Your task to perform on an android device: Search for "duracell triple a" on newegg.com, select the first entry, and add it to the cart. Image 0: 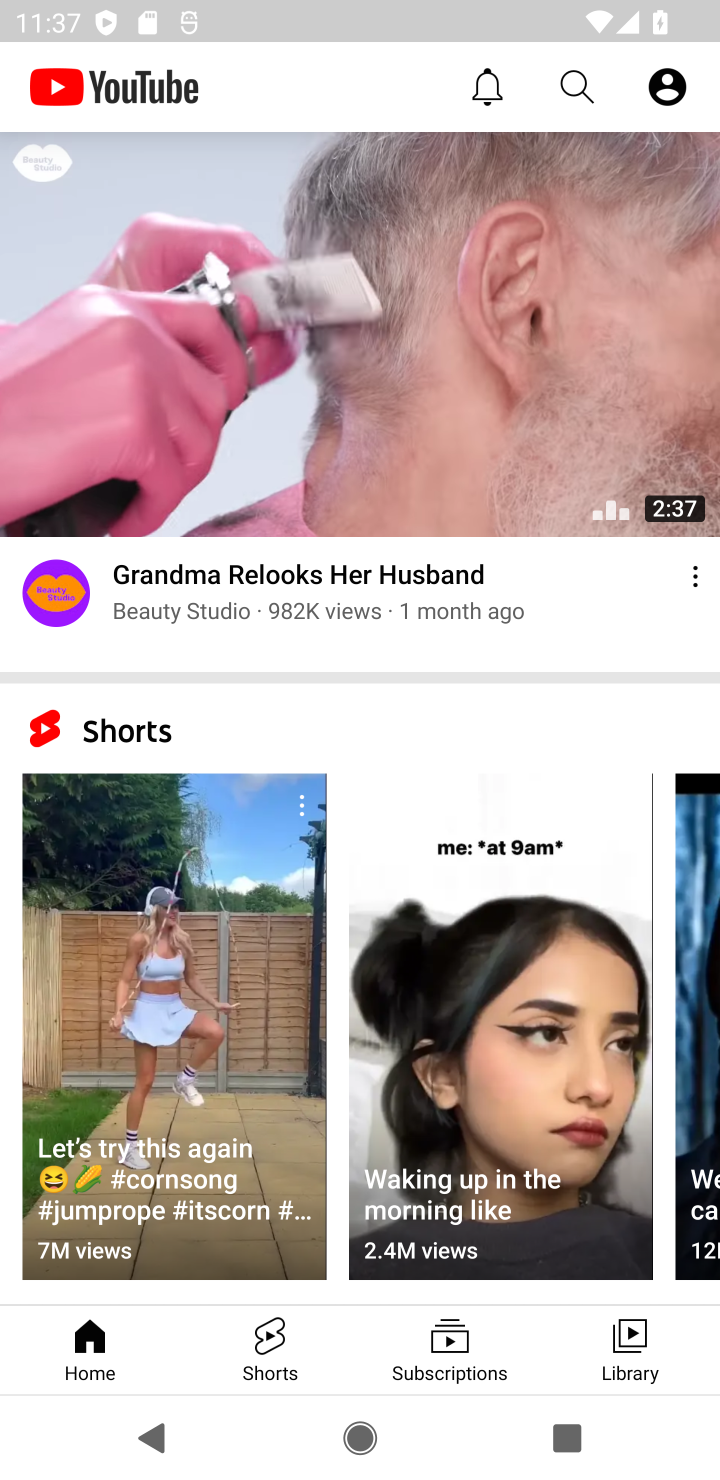
Step 0: press home button
Your task to perform on an android device: Search for "duracell triple a" on newegg.com, select the first entry, and add it to the cart. Image 1: 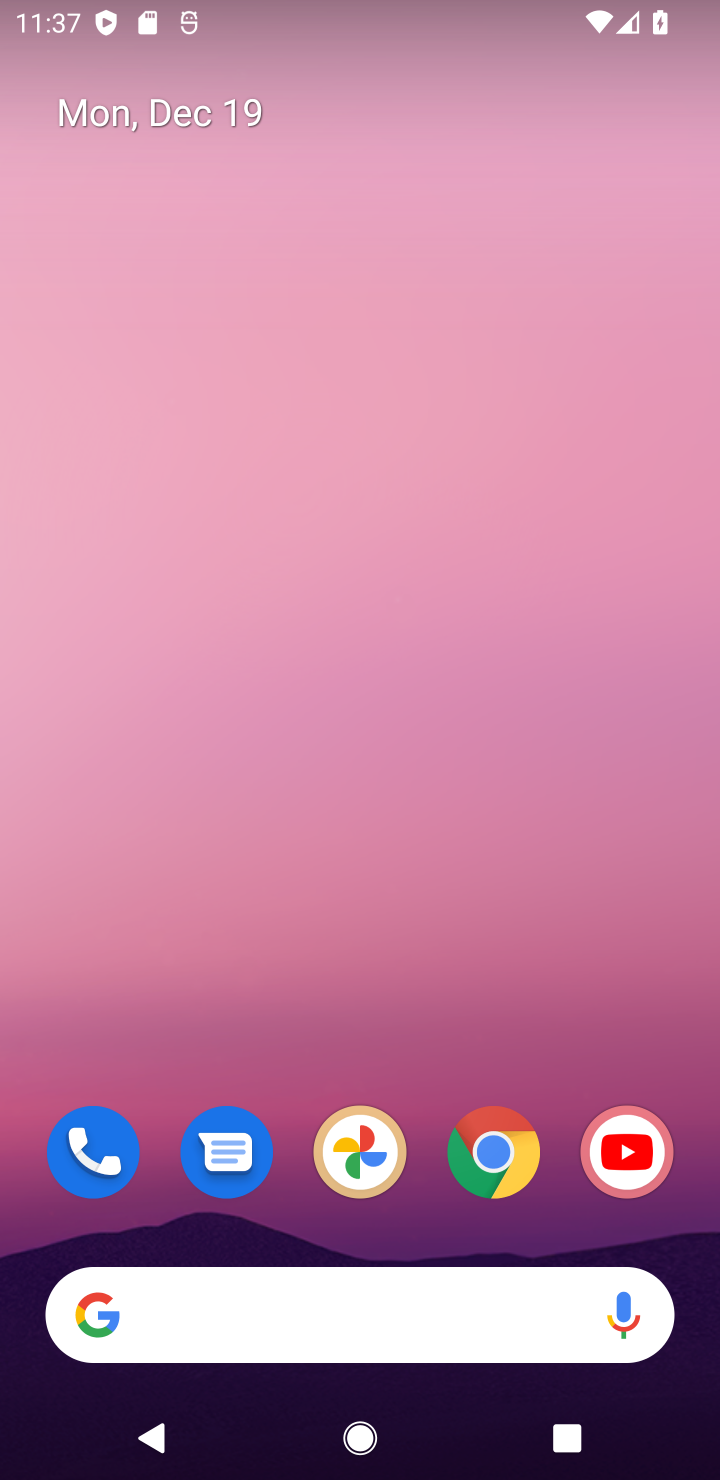
Step 1: click (494, 1147)
Your task to perform on an android device: Search for "duracell triple a" on newegg.com, select the first entry, and add it to the cart. Image 2: 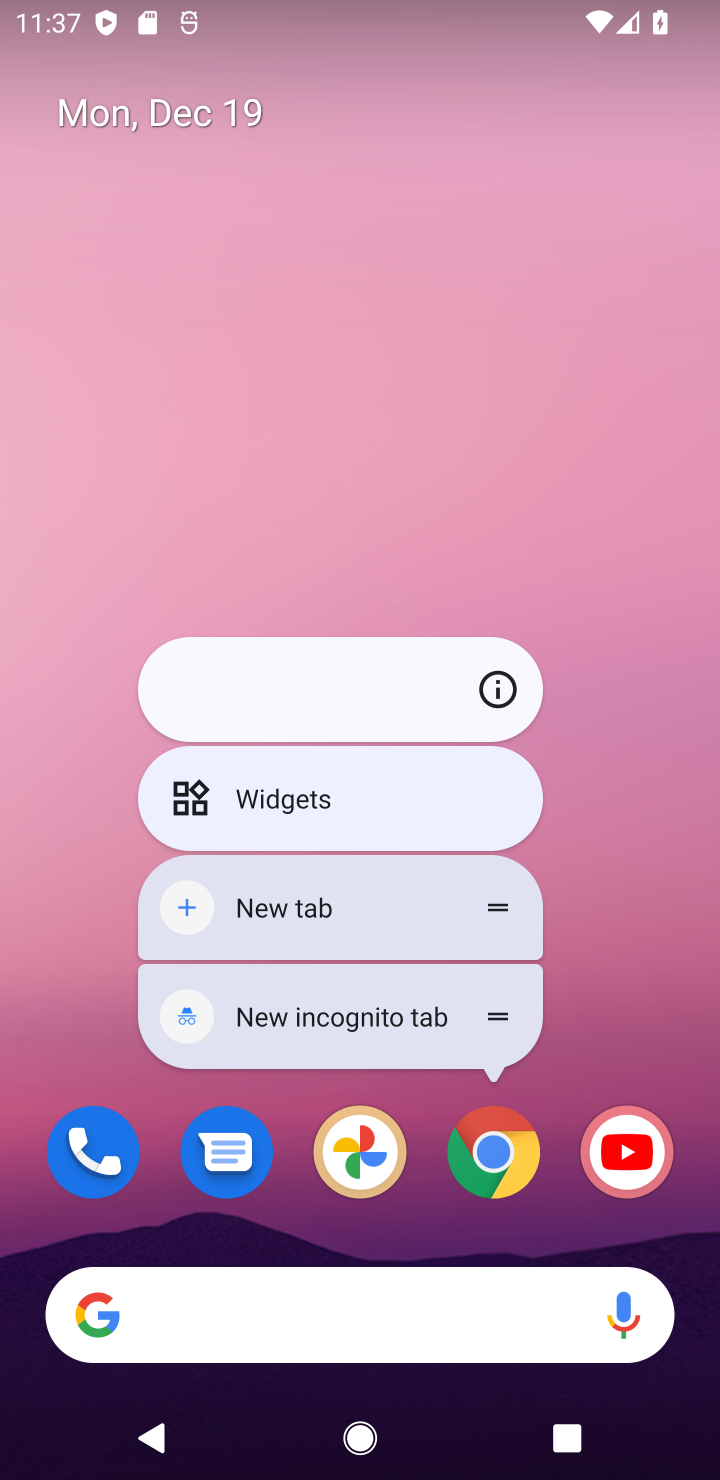
Step 2: click (496, 1152)
Your task to perform on an android device: Search for "duracell triple a" on newegg.com, select the first entry, and add it to the cart. Image 3: 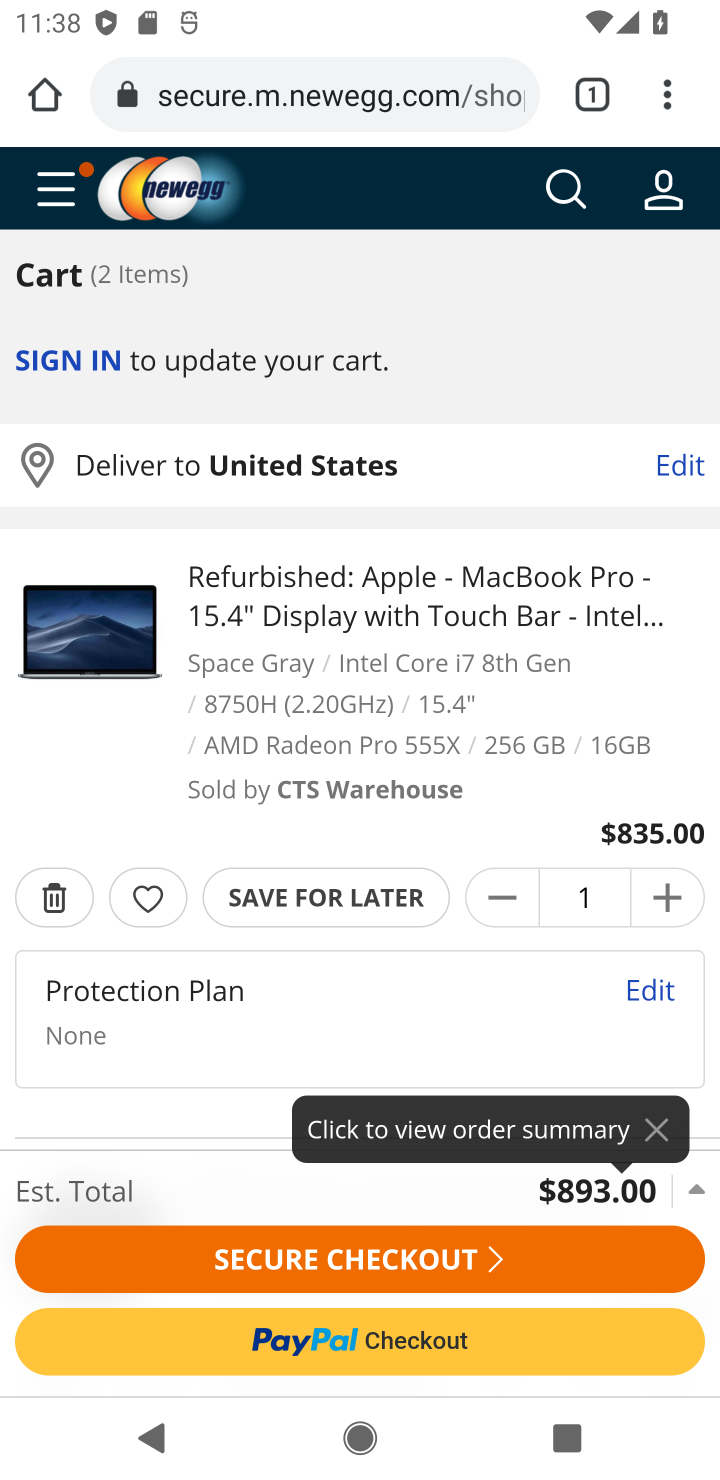
Step 3: click (570, 183)
Your task to perform on an android device: Search for "duracell triple a" on newegg.com, select the first entry, and add it to the cart. Image 4: 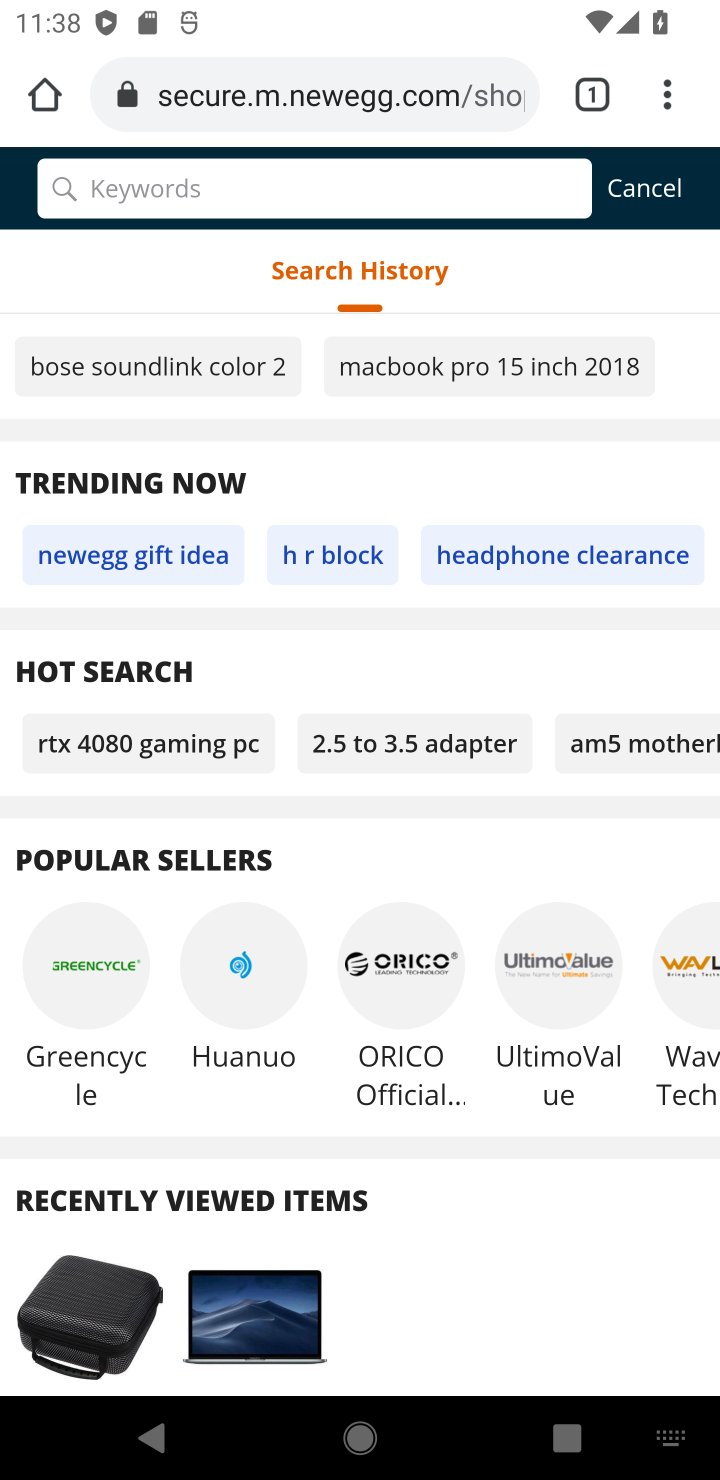
Step 4: click (356, 197)
Your task to perform on an android device: Search for "duracell triple a" on newegg.com, select the first entry, and add it to the cart. Image 5: 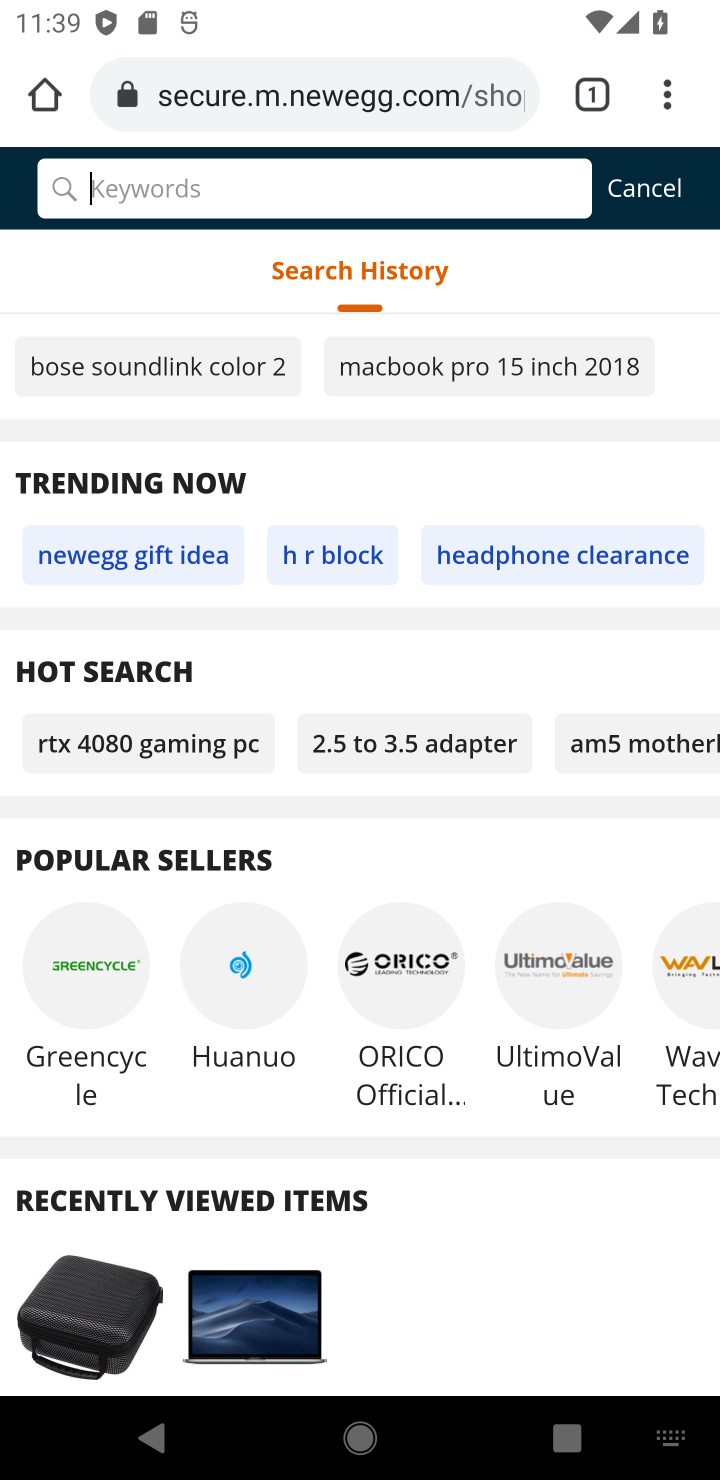
Step 5: type "duracell triple a "
Your task to perform on an android device: Search for "duracell triple a" on newegg.com, select the first entry, and add it to the cart. Image 6: 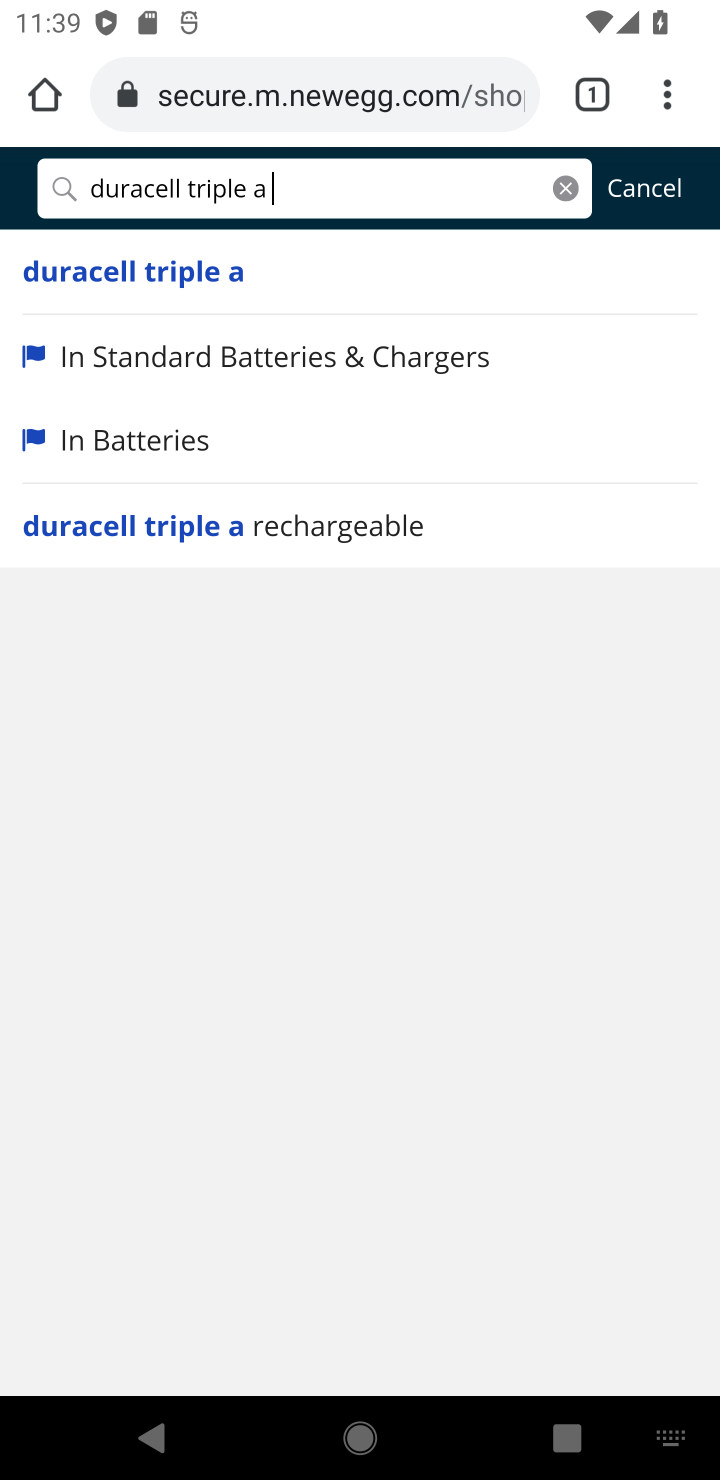
Step 6: click (258, 270)
Your task to perform on an android device: Search for "duracell triple a" on newegg.com, select the first entry, and add it to the cart. Image 7: 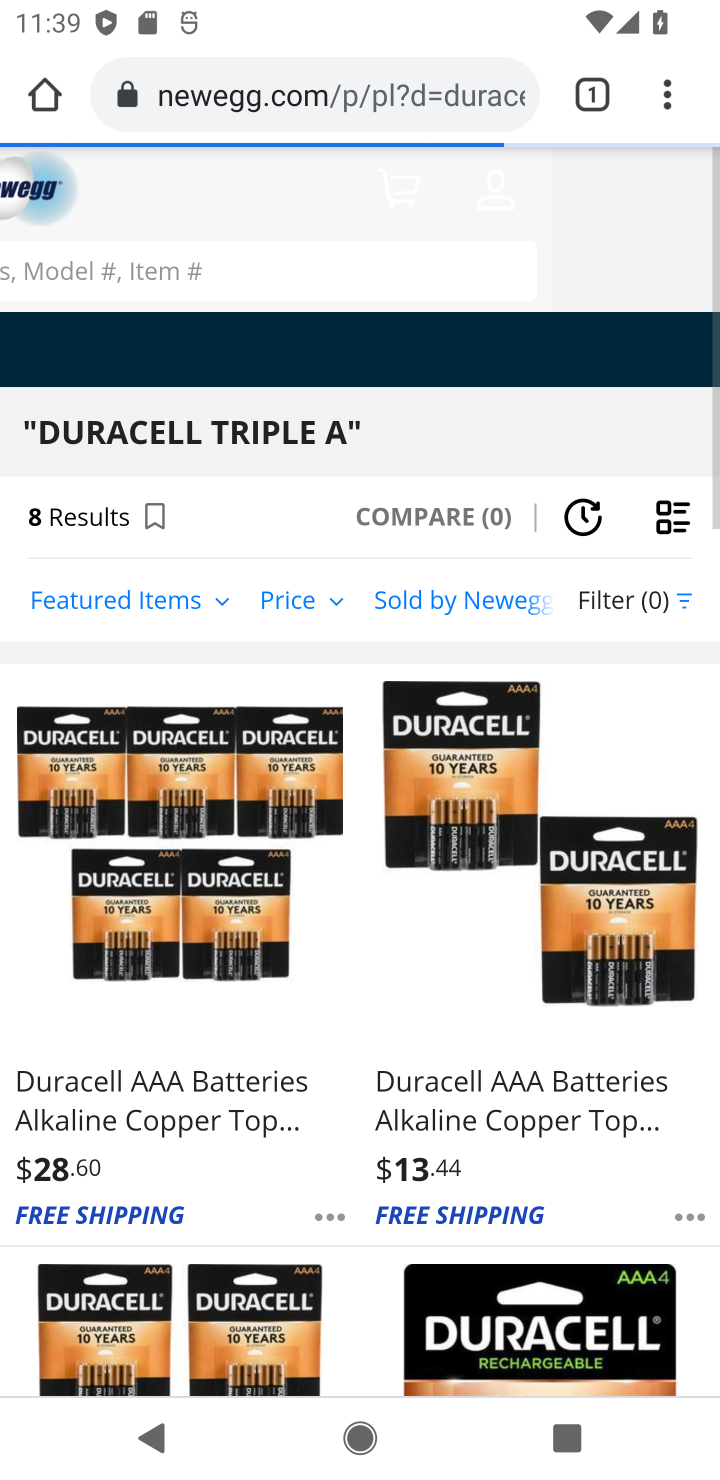
Step 7: click (184, 264)
Your task to perform on an android device: Search for "duracell triple a" on newegg.com, select the first entry, and add it to the cart. Image 8: 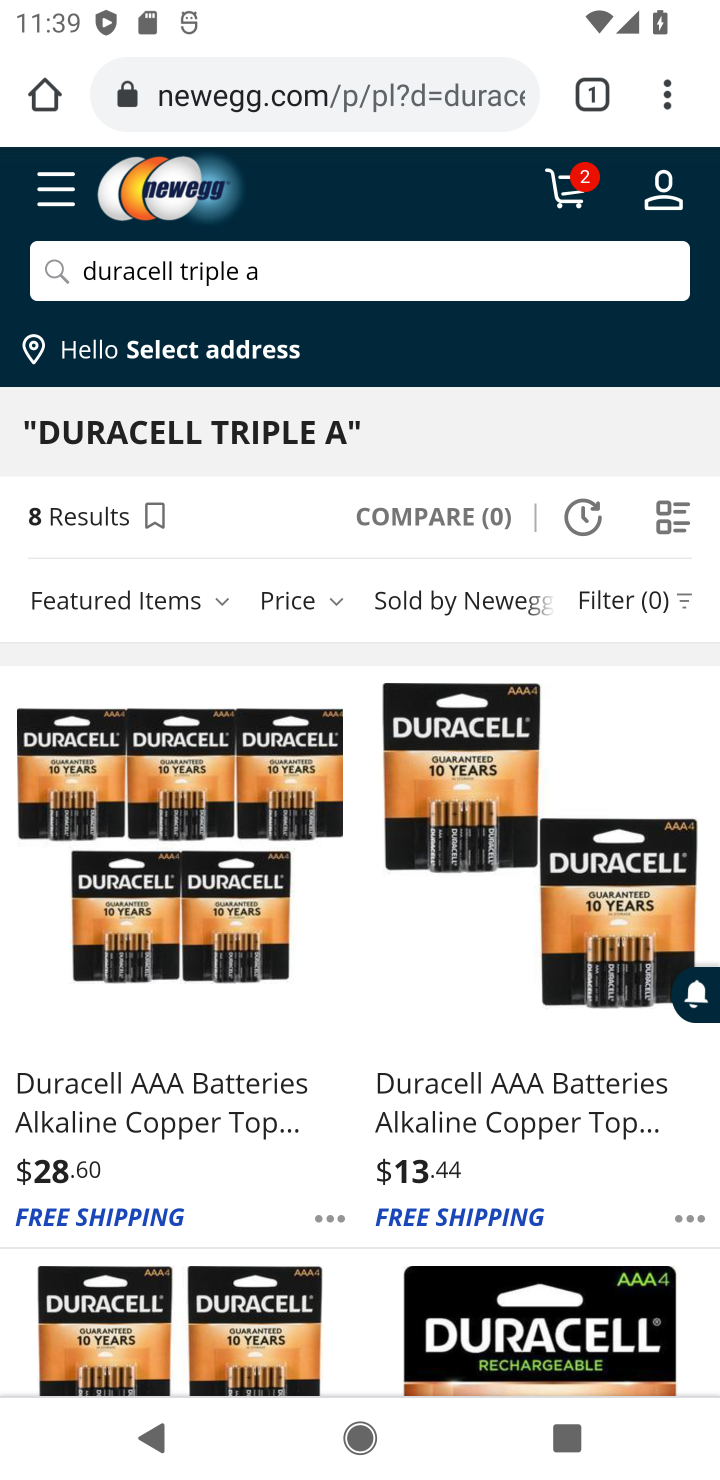
Step 8: click (176, 861)
Your task to perform on an android device: Search for "duracell triple a" on newegg.com, select the first entry, and add it to the cart. Image 9: 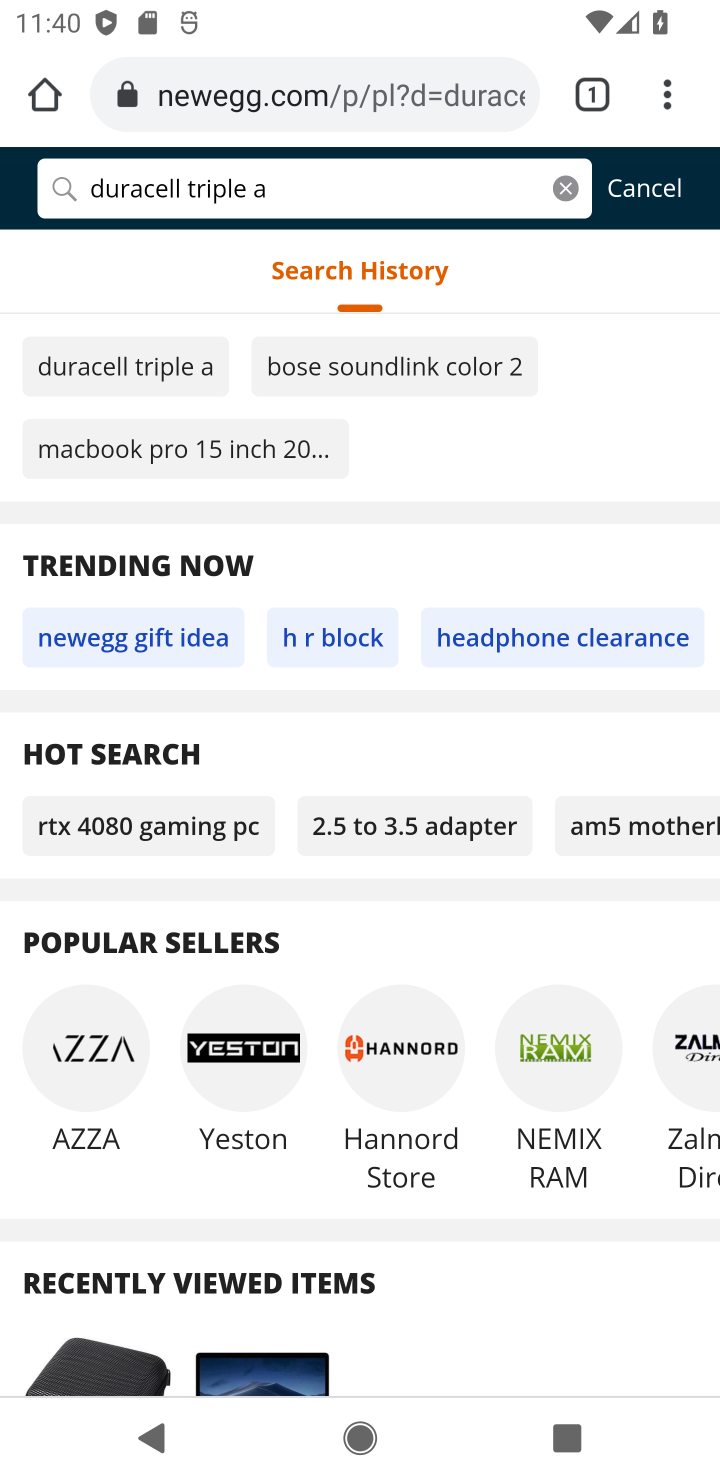
Step 9: drag from (363, 952) to (377, 320)
Your task to perform on an android device: Search for "duracell triple a" on newegg.com, select the first entry, and add it to the cart. Image 10: 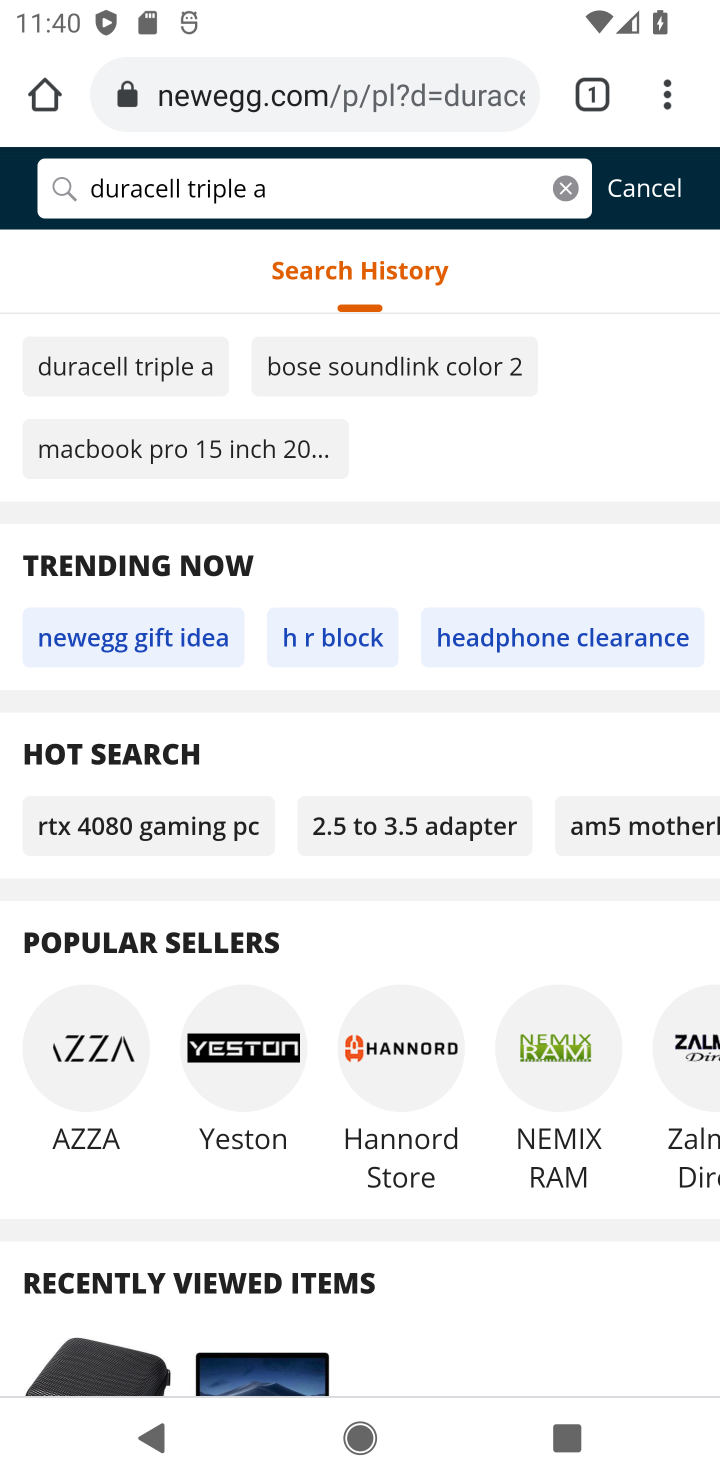
Step 10: drag from (380, 1280) to (438, 703)
Your task to perform on an android device: Search for "duracell triple a" on newegg.com, select the first entry, and add it to the cart. Image 11: 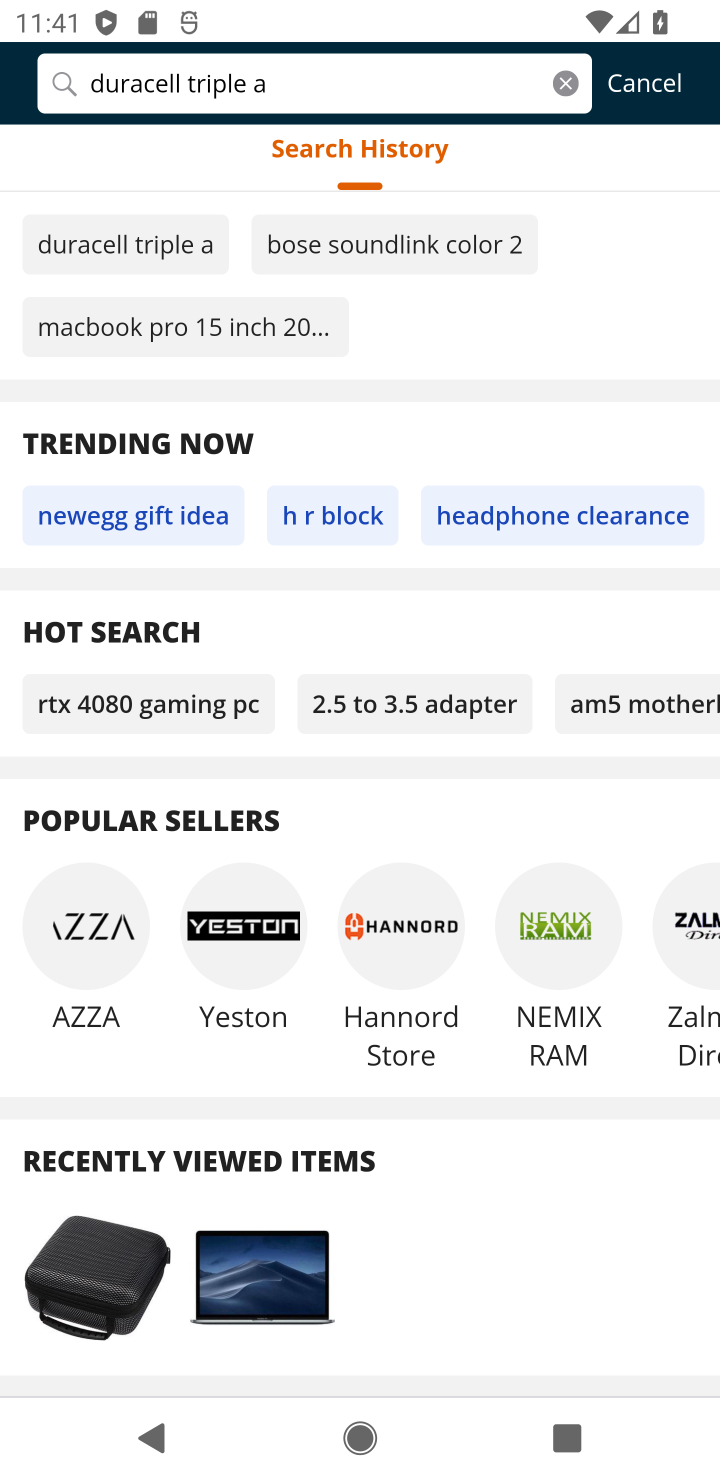
Step 11: drag from (403, 1161) to (406, 307)
Your task to perform on an android device: Search for "duracell triple a" on newegg.com, select the first entry, and add it to the cart. Image 12: 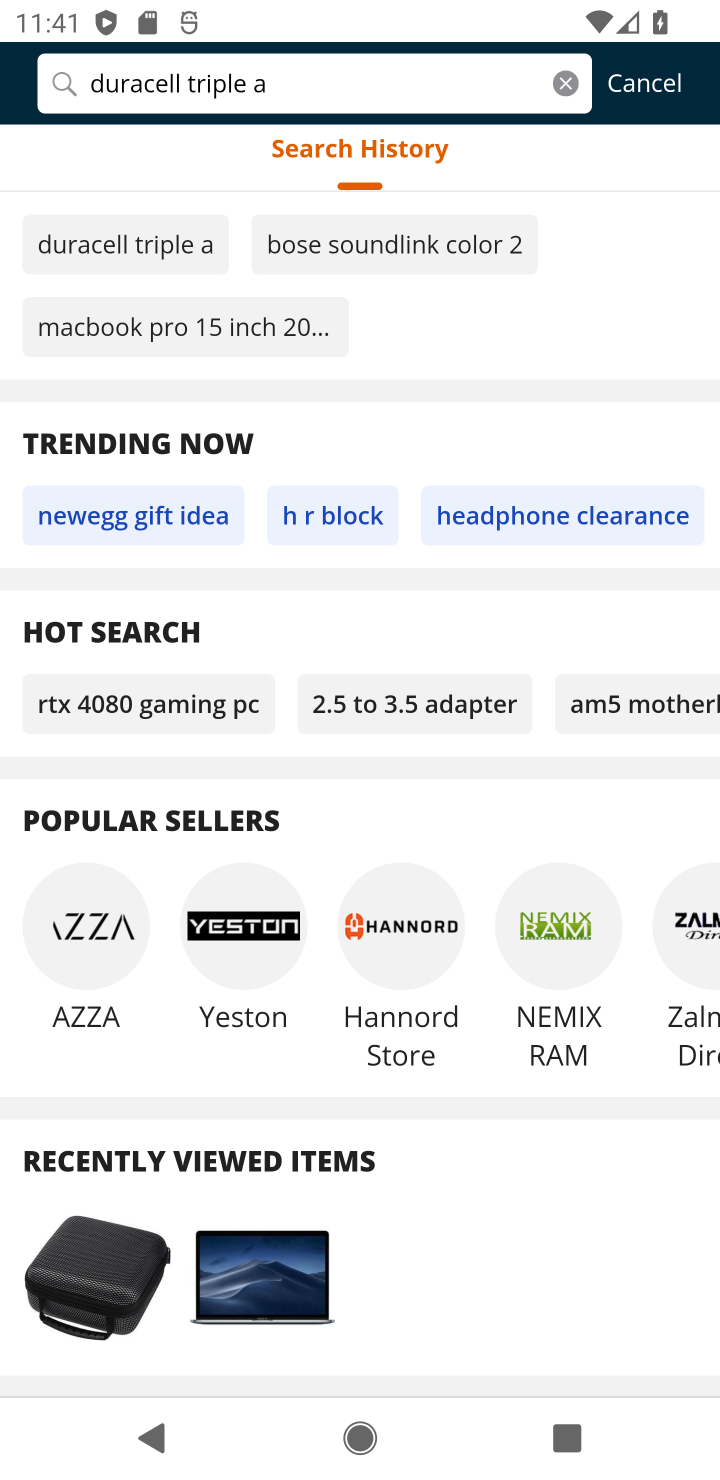
Step 12: click (407, 71)
Your task to perform on an android device: Search for "duracell triple a" on newegg.com, select the first entry, and add it to the cart. Image 13: 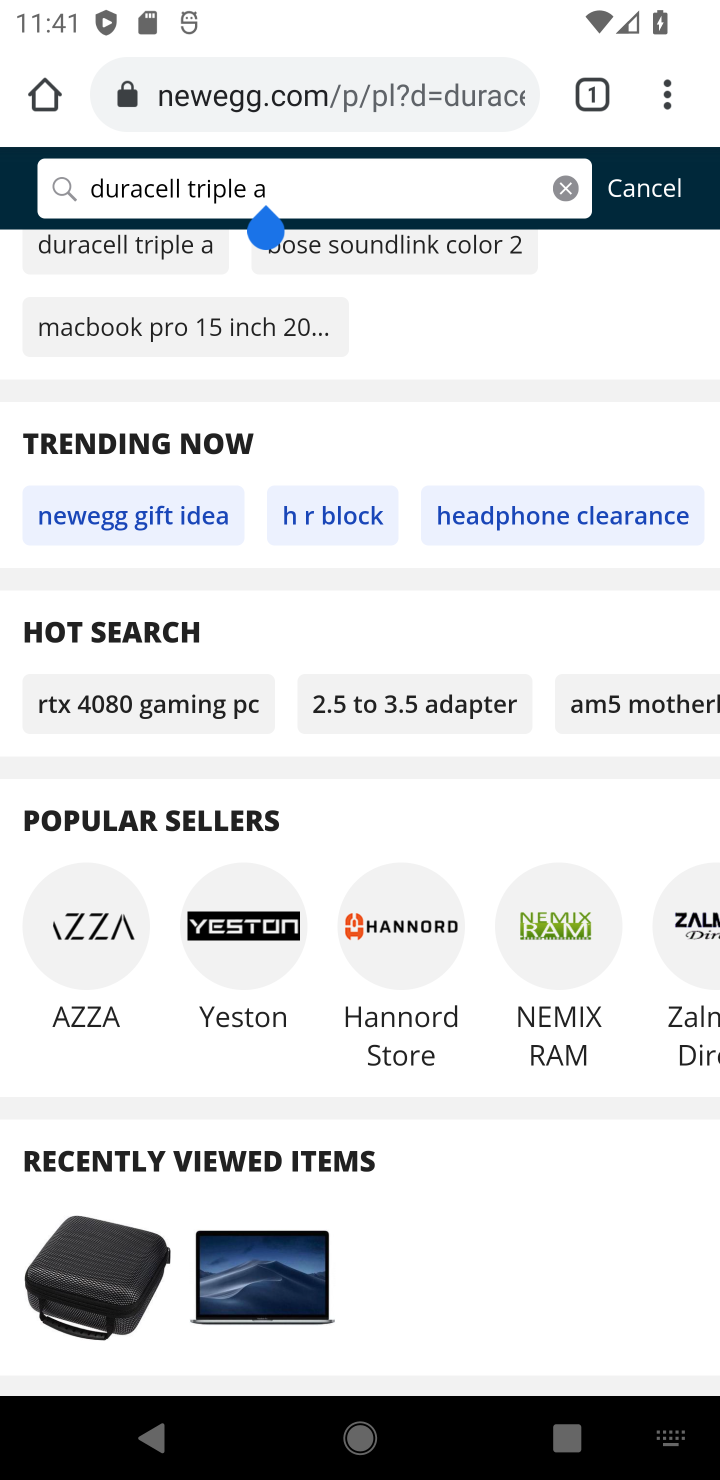
Step 13: task complete